Your task to perform on an android device: change timer sound Image 0: 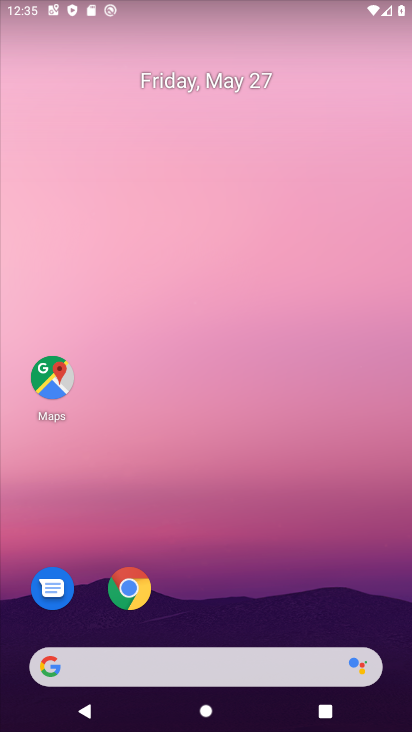
Step 0: drag from (177, 606) to (193, 30)
Your task to perform on an android device: change timer sound Image 1: 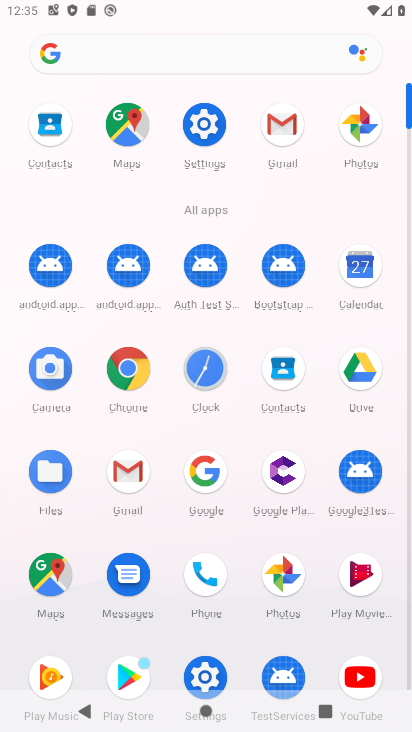
Step 1: click (206, 375)
Your task to perform on an android device: change timer sound Image 2: 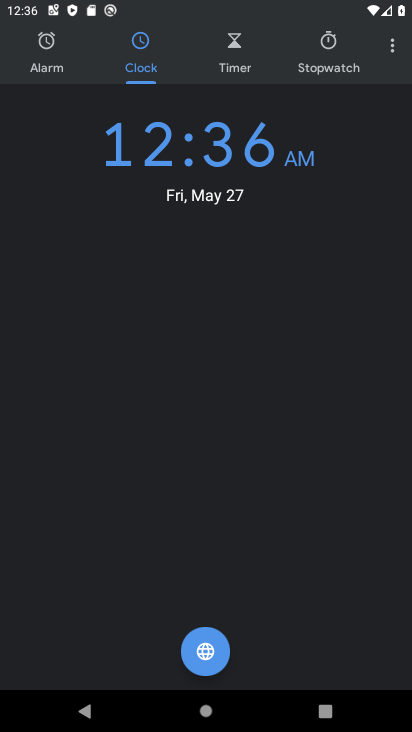
Step 2: click (394, 47)
Your task to perform on an android device: change timer sound Image 3: 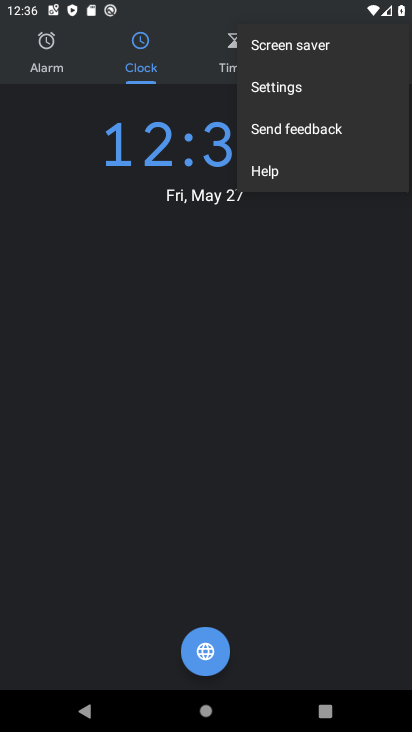
Step 3: click (283, 96)
Your task to perform on an android device: change timer sound Image 4: 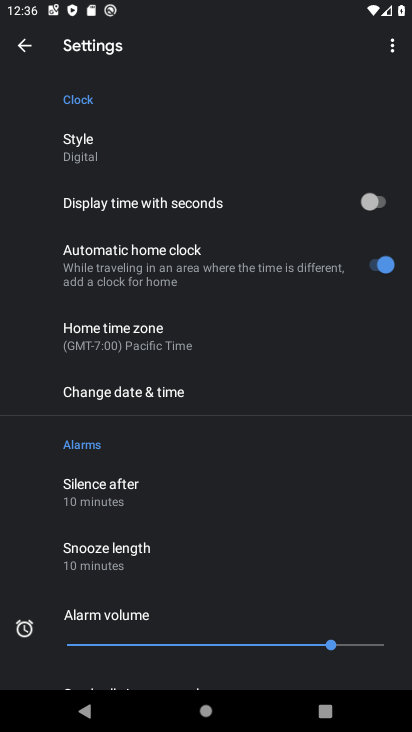
Step 4: drag from (229, 566) to (214, 252)
Your task to perform on an android device: change timer sound Image 5: 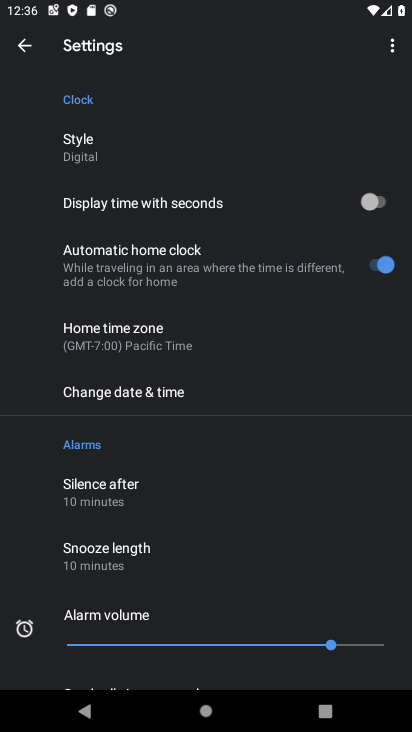
Step 5: drag from (219, 592) to (199, 266)
Your task to perform on an android device: change timer sound Image 6: 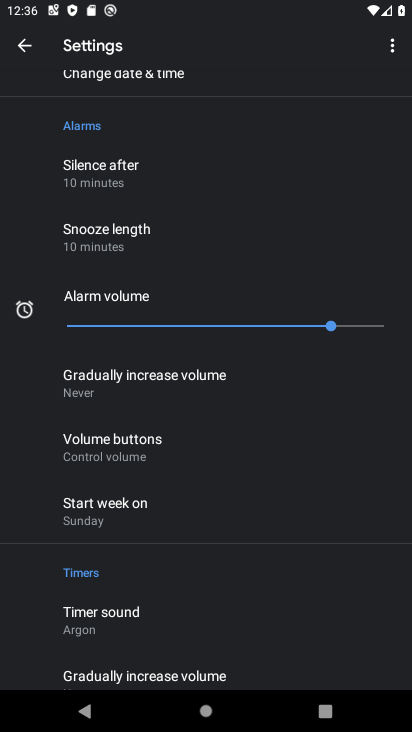
Step 6: click (117, 625)
Your task to perform on an android device: change timer sound Image 7: 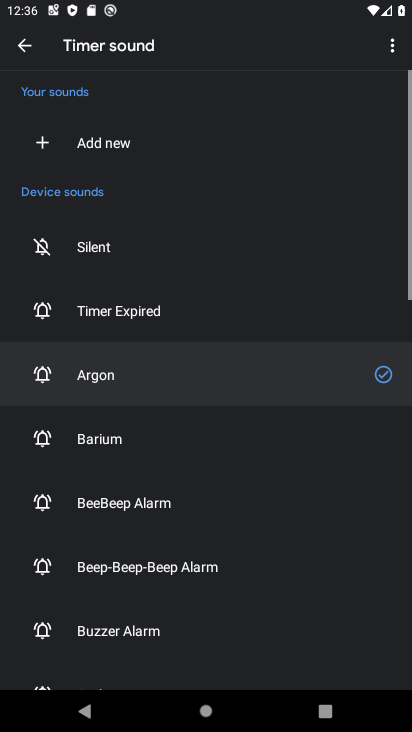
Step 7: click (109, 314)
Your task to perform on an android device: change timer sound Image 8: 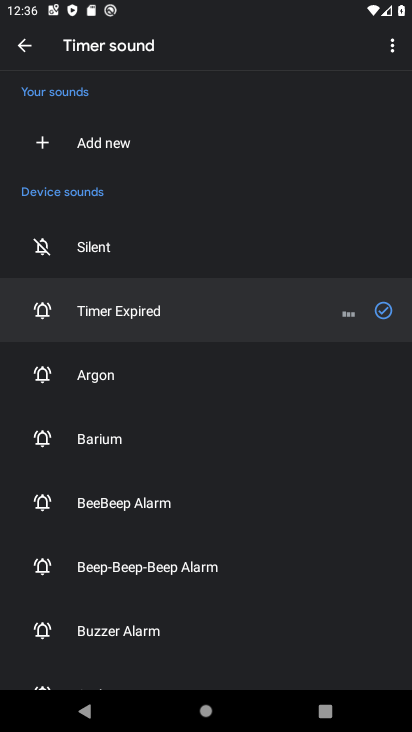
Step 8: click (26, 38)
Your task to perform on an android device: change timer sound Image 9: 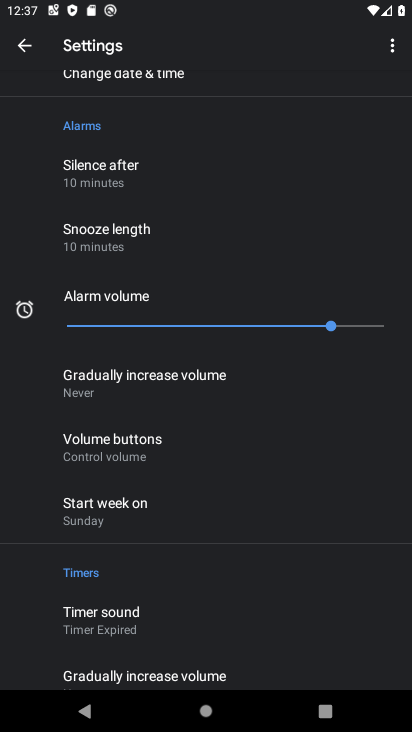
Step 9: task complete